Your task to perform on an android device: Open battery settings Image 0: 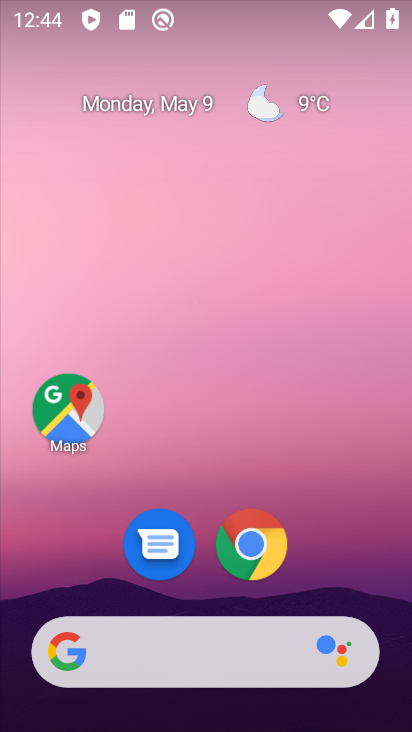
Step 0: drag from (314, 7) to (305, 121)
Your task to perform on an android device: Open battery settings Image 1: 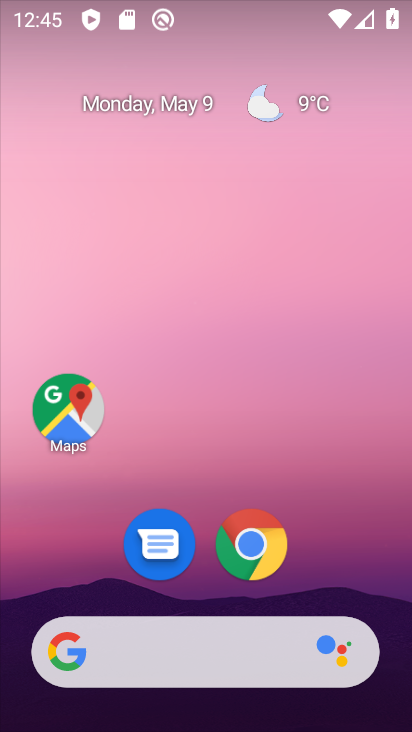
Step 1: drag from (344, 11) to (332, 438)
Your task to perform on an android device: Open battery settings Image 2: 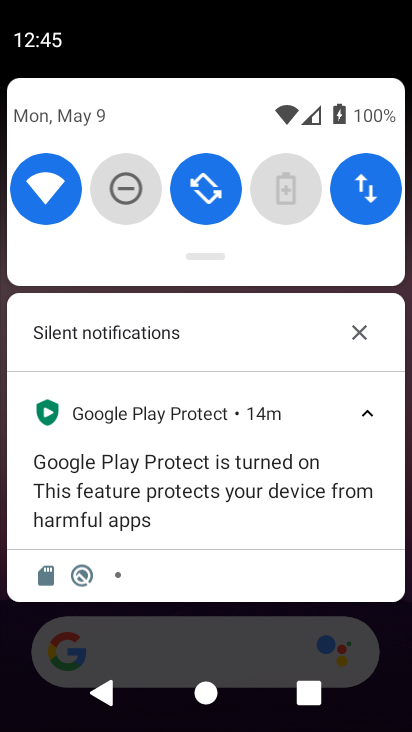
Step 2: drag from (226, 241) to (246, 605)
Your task to perform on an android device: Open battery settings Image 3: 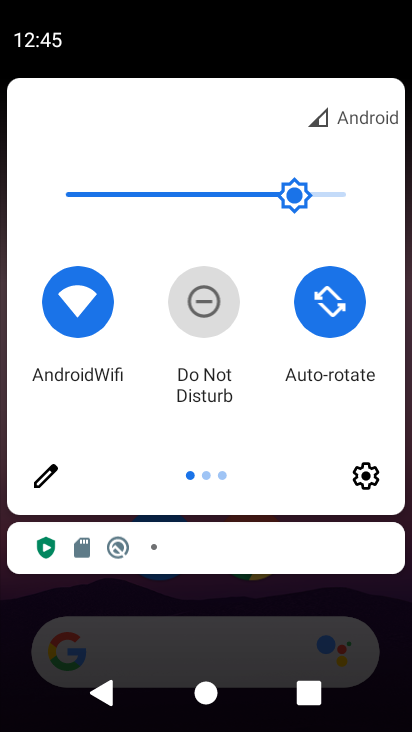
Step 3: click (369, 471)
Your task to perform on an android device: Open battery settings Image 4: 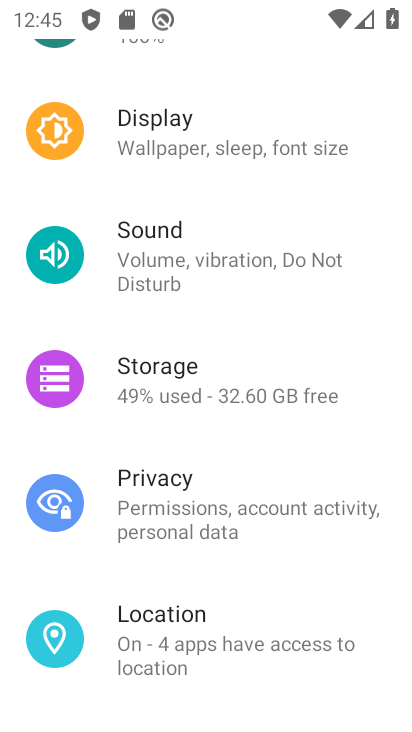
Step 4: drag from (209, 251) to (182, 608)
Your task to perform on an android device: Open battery settings Image 5: 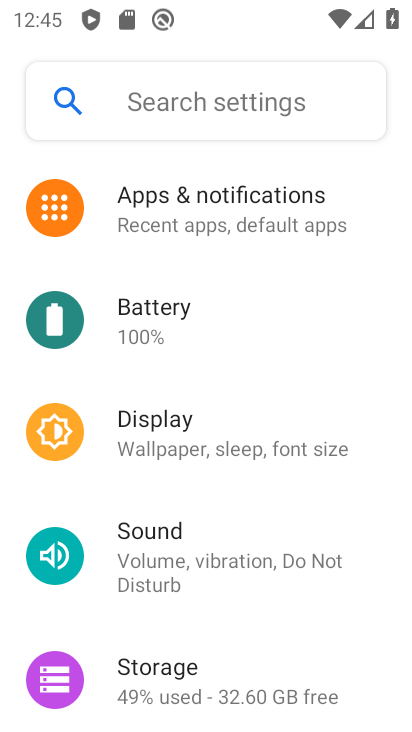
Step 5: click (154, 310)
Your task to perform on an android device: Open battery settings Image 6: 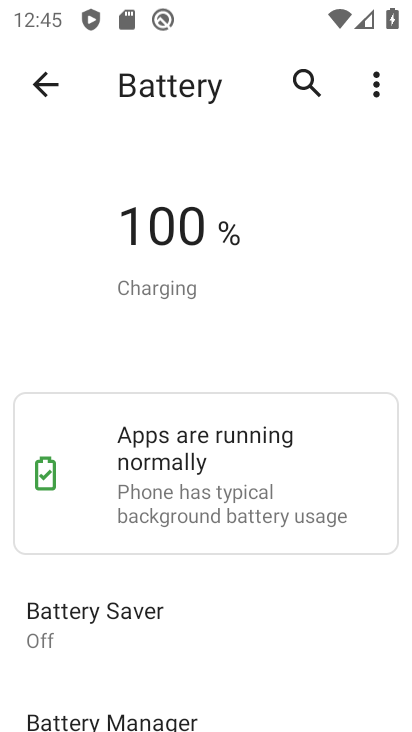
Step 6: task complete